Your task to perform on an android device: open app "DuckDuckGo Privacy Browser" (install if not already installed), go to login, and select forgot password Image 0: 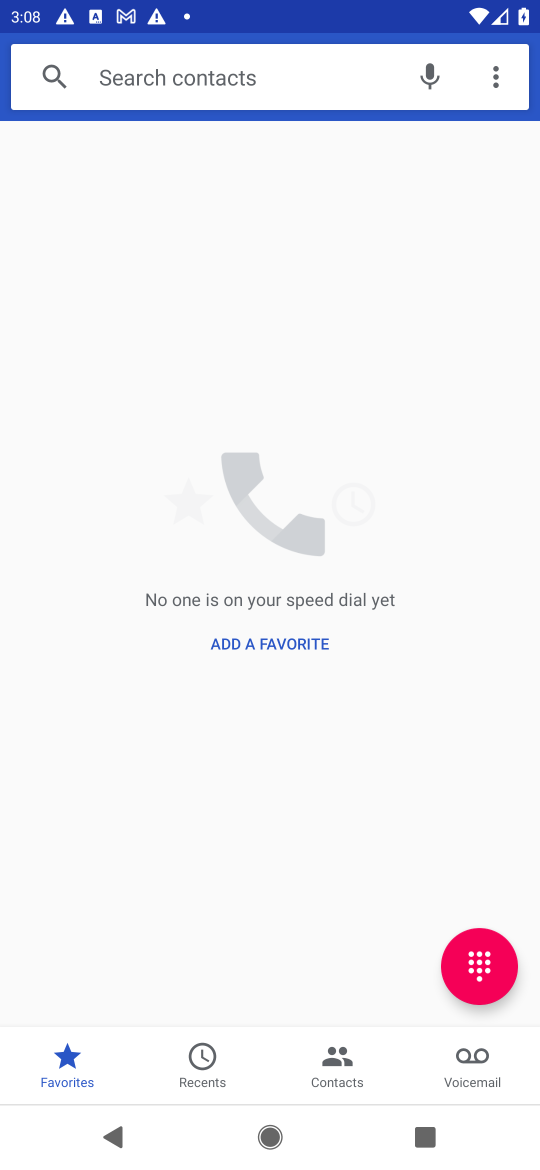
Step 0: press home button
Your task to perform on an android device: open app "DuckDuckGo Privacy Browser" (install if not already installed), go to login, and select forgot password Image 1: 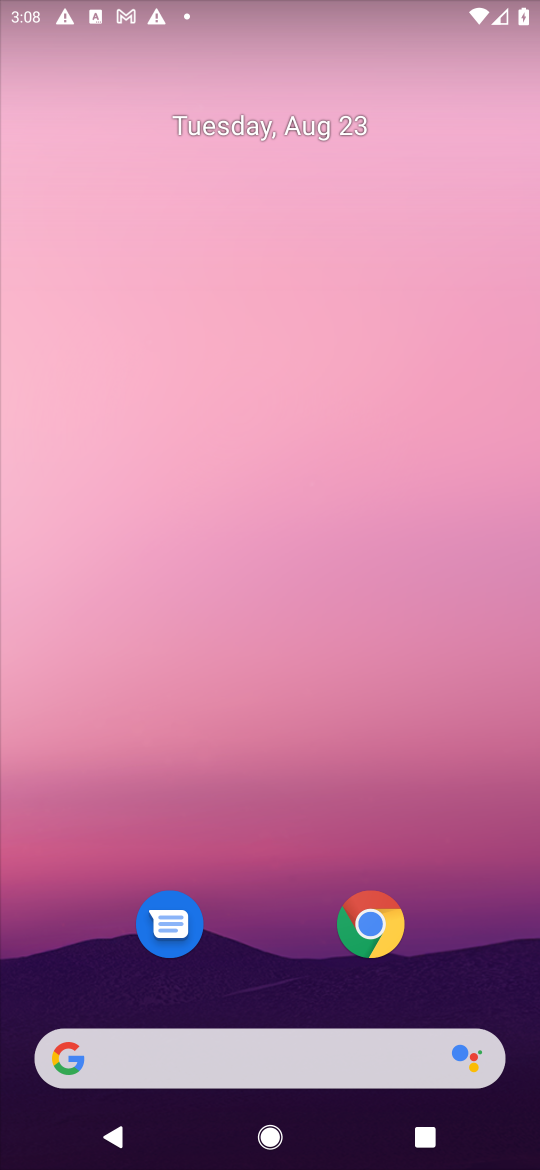
Step 1: drag from (468, 950) to (453, 149)
Your task to perform on an android device: open app "DuckDuckGo Privacy Browser" (install if not already installed), go to login, and select forgot password Image 2: 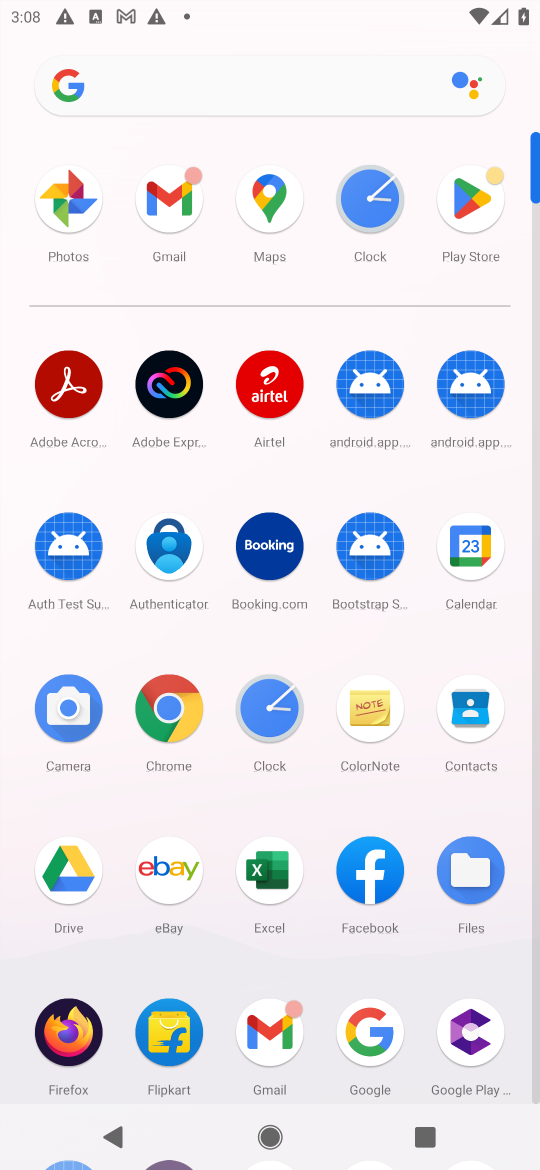
Step 2: click (469, 205)
Your task to perform on an android device: open app "DuckDuckGo Privacy Browser" (install if not already installed), go to login, and select forgot password Image 3: 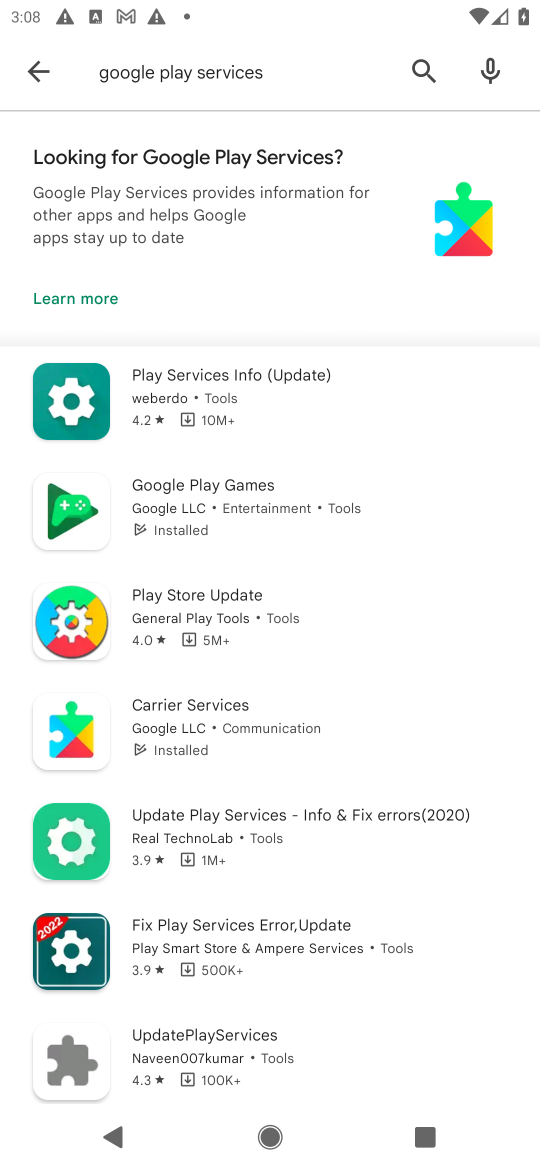
Step 3: press back button
Your task to perform on an android device: open app "DuckDuckGo Privacy Browser" (install if not already installed), go to login, and select forgot password Image 4: 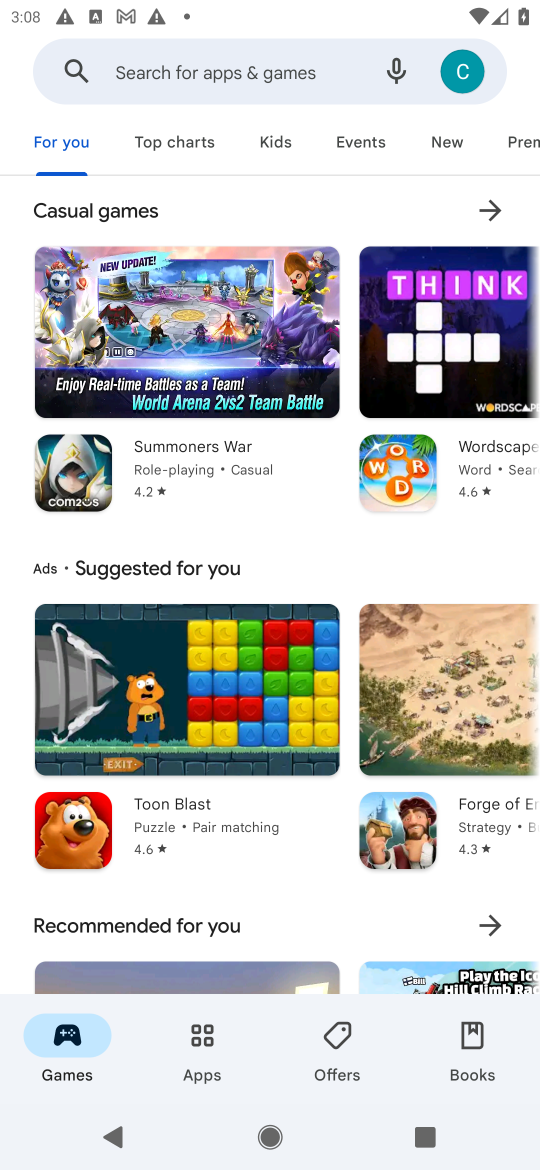
Step 4: click (229, 73)
Your task to perform on an android device: open app "DuckDuckGo Privacy Browser" (install if not already installed), go to login, and select forgot password Image 5: 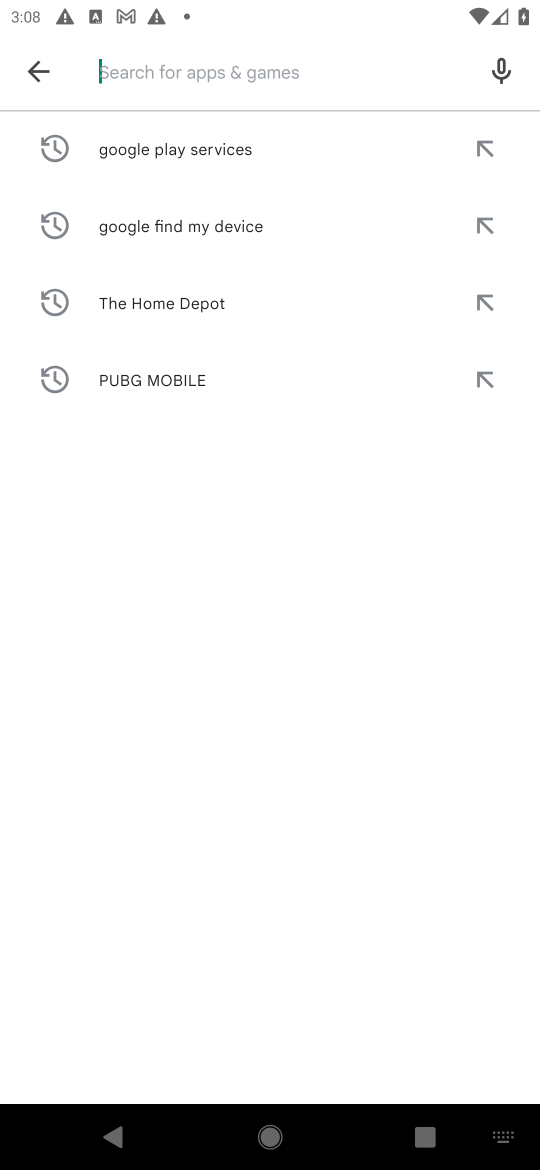
Step 5: press enter
Your task to perform on an android device: open app "DuckDuckGo Privacy Browser" (install if not already installed), go to login, and select forgot password Image 6: 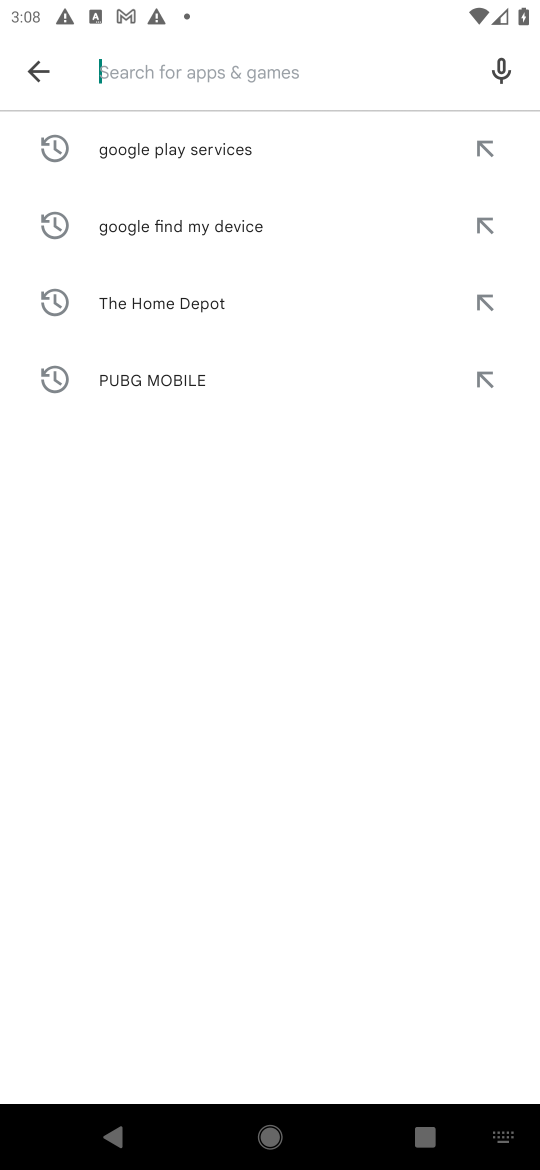
Step 6: type "DuckDuckGo Privacy Browser"
Your task to perform on an android device: open app "DuckDuckGo Privacy Browser" (install if not already installed), go to login, and select forgot password Image 7: 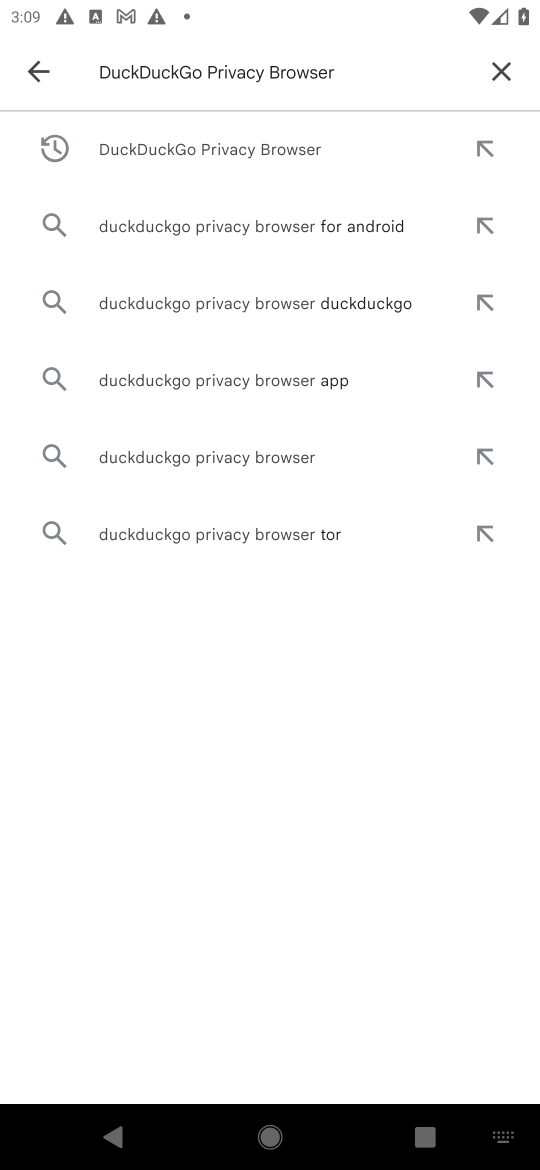
Step 7: click (251, 148)
Your task to perform on an android device: open app "DuckDuckGo Privacy Browser" (install if not already installed), go to login, and select forgot password Image 8: 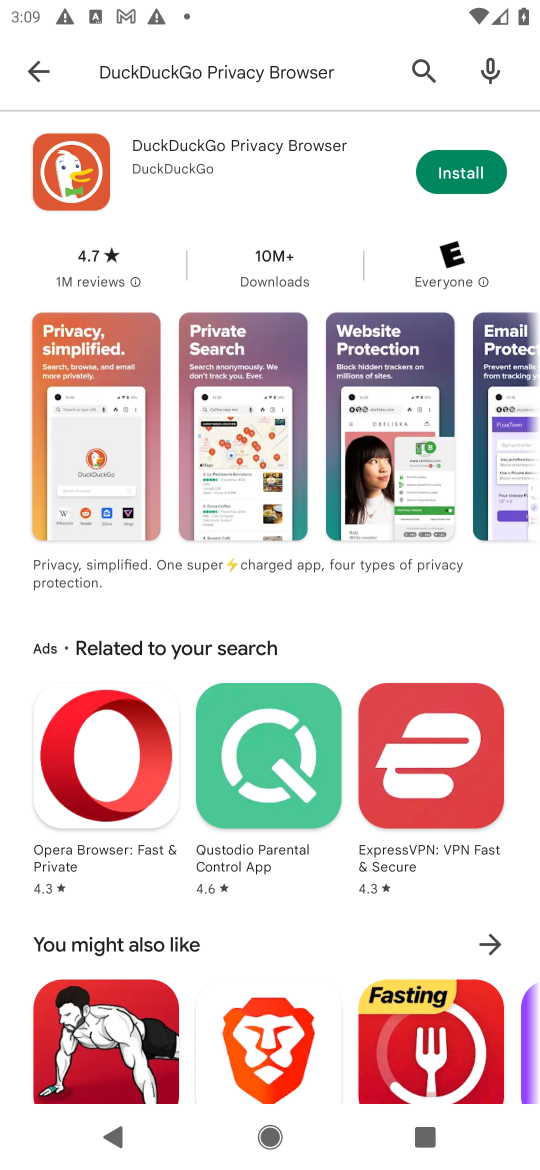
Step 8: click (468, 186)
Your task to perform on an android device: open app "DuckDuckGo Privacy Browser" (install if not already installed), go to login, and select forgot password Image 9: 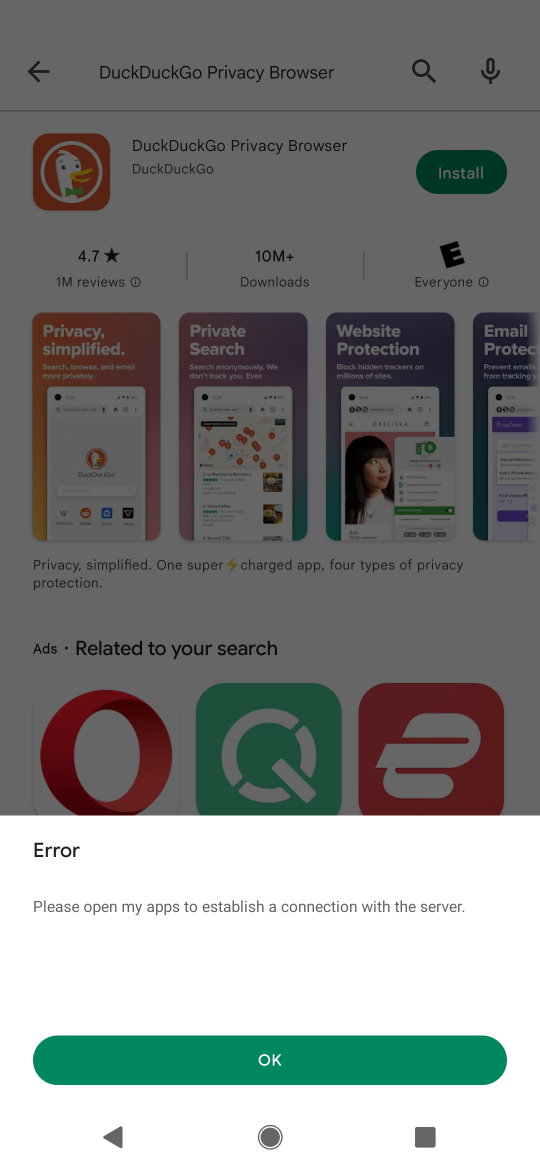
Step 9: task complete